Your task to perform on an android device: snooze an email in the gmail app Image 0: 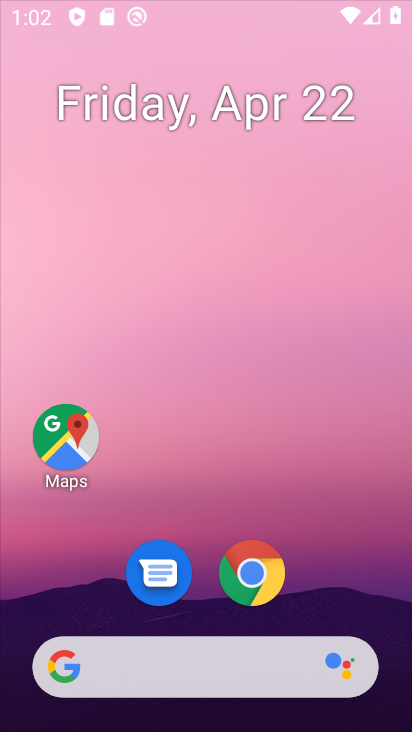
Step 0: click (330, 206)
Your task to perform on an android device: snooze an email in the gmail app Image 1: 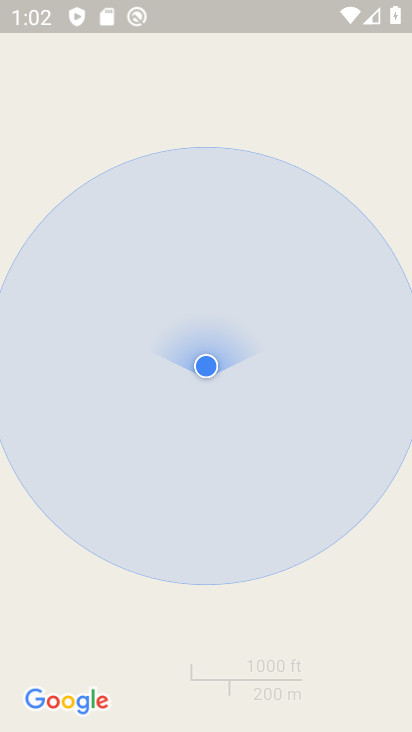
Step 1: press home button
Your task to perform on an android device: snooze an email in the gmail app Image 2: 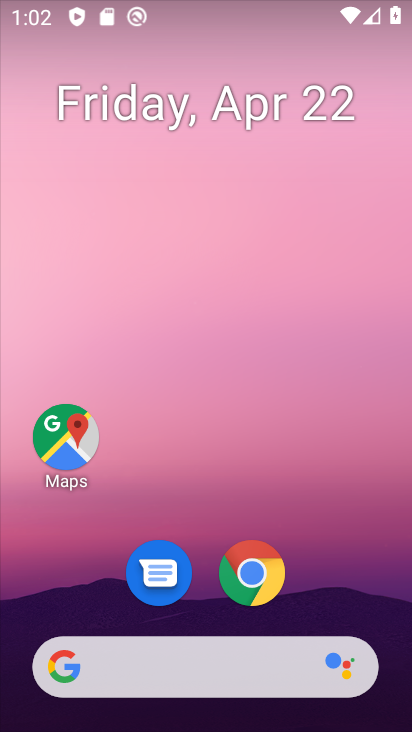
Step 2: drag from (348, 613) to (356, 182)
Your task to perform on an android device: snooze an email in the gmail app Image 3: 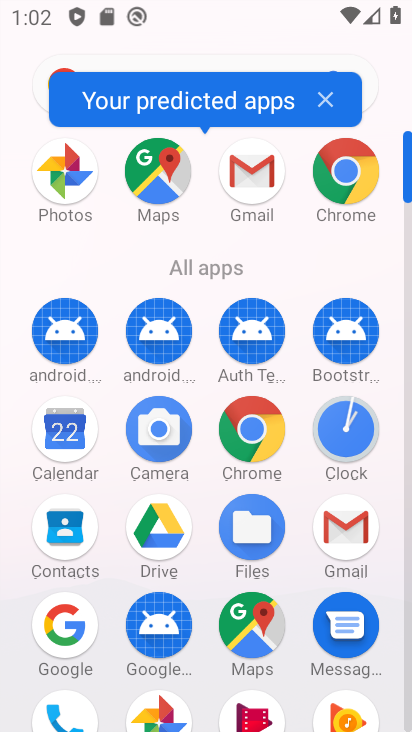
Step 3: click (359, 530)
Your task to perform on an android device: snooze an email in the gmail app Image 4: 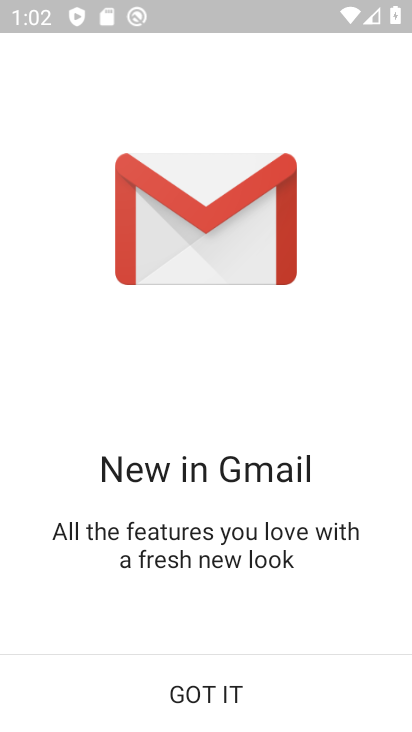
Step 4: click (207, 698)
Your task to perform on an android device: snooze an email in the gmail app Image 5: 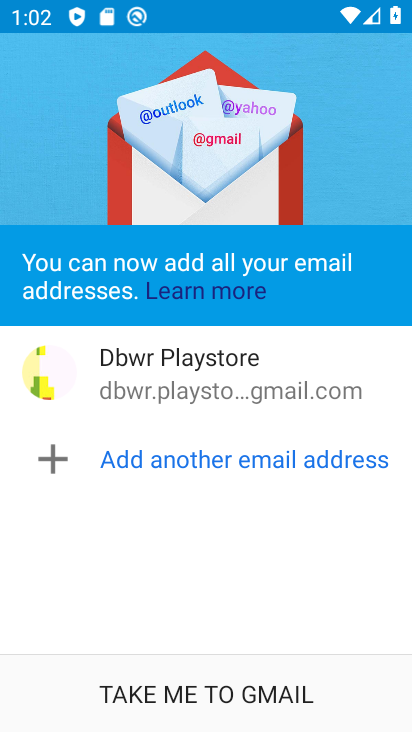
Step 5: click (218, 682)
Your task to perform on an android device: snooze an email in the gmail app Image 6: 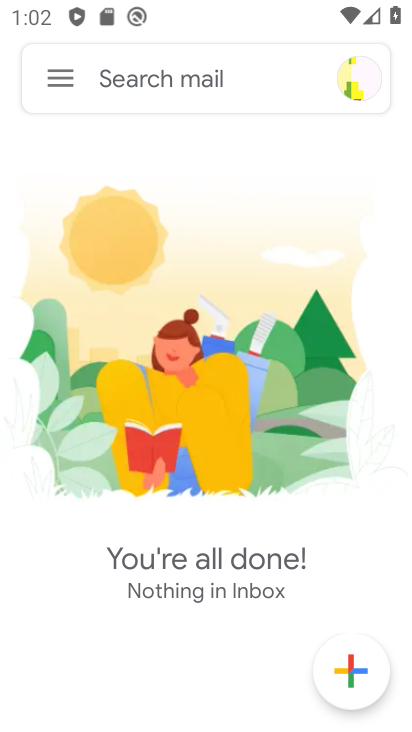
Step 6: task complete